Your task to perform on an android device: add a label to a message in the gmail app Image 0: 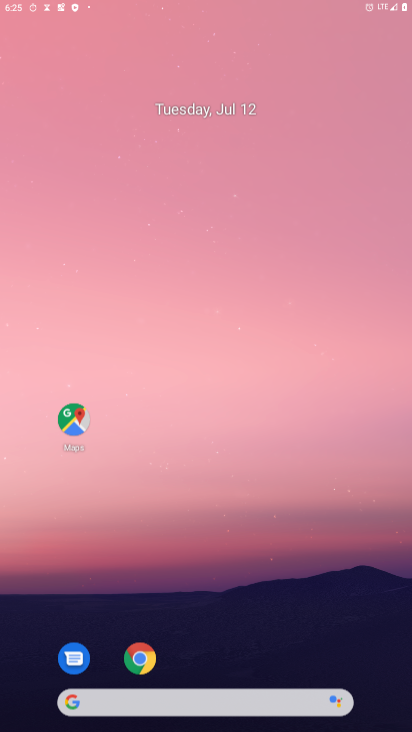
Step 0: press home button
Your task to perform on an android device: add a label to a message in the gmail app Image 1: 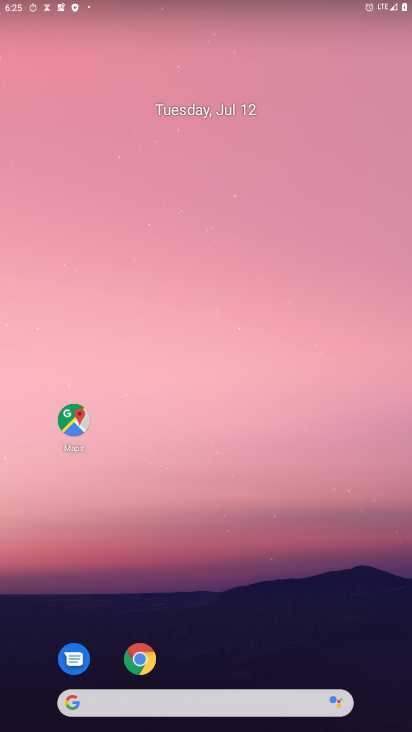
Step 1: drag from (202, 335) to (220, 191)
Your task to perform on an android device: add a label to a message in the gmail app Image 2: 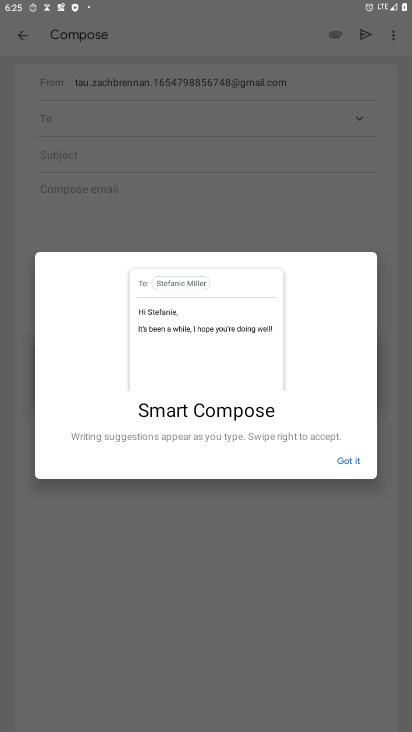
Step 2: drag from (209, 446) to (219, 106)
Your task to perform on an android device: add a label to a message in the gmail app Image 3: 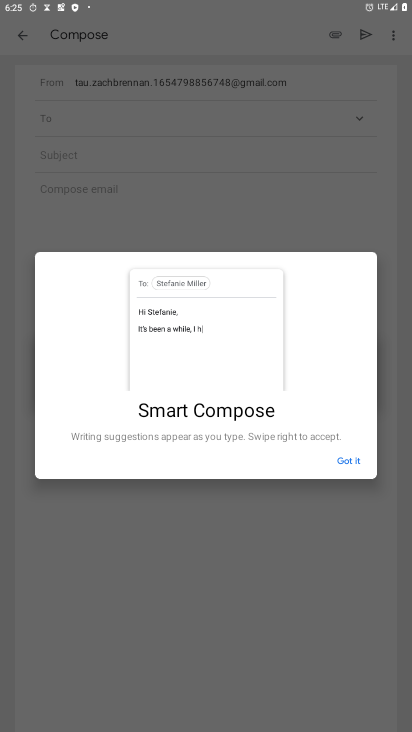
Step 3: click (352, 459)
Your task to perform on an android device: add a label to a message in the gmail app Image 4: 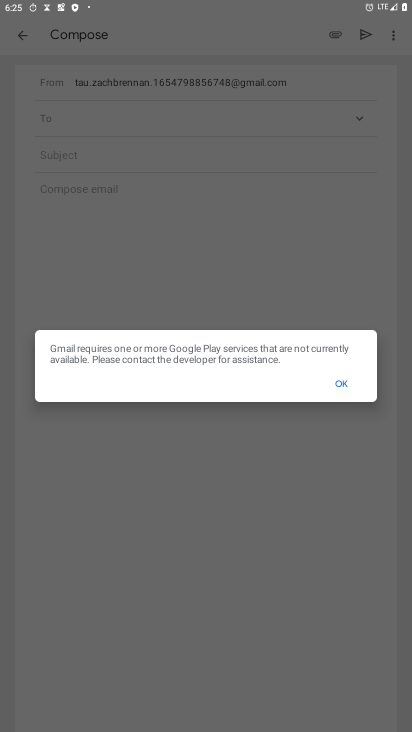
Step 4: click (343, 385)
Your task to perform on an android device: add a label to a message in the gmail app Image 5: 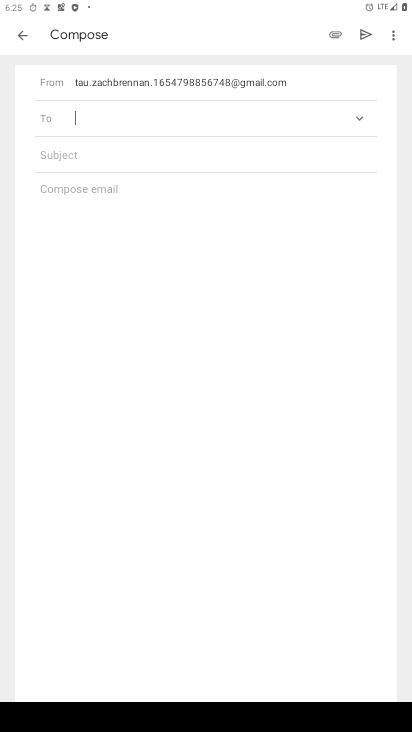
Step 5: click (22, 39)
Your task to perform on an android device: add a label to a message in the gmail app Image 6: 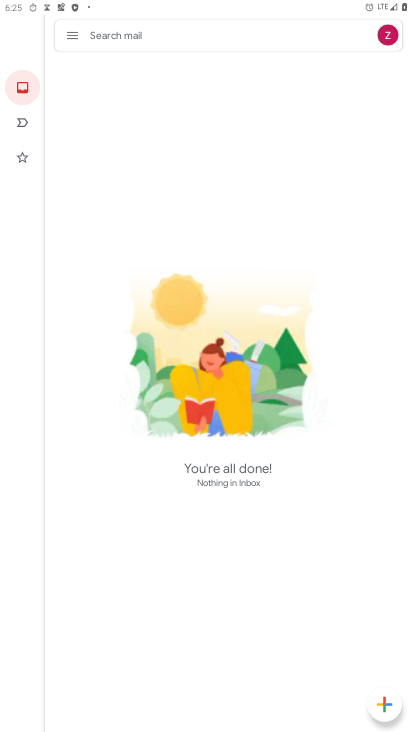
Step 6: click (75, 29)
Your task to perform on an android device: add a label to a message in the gmail app Image 7: 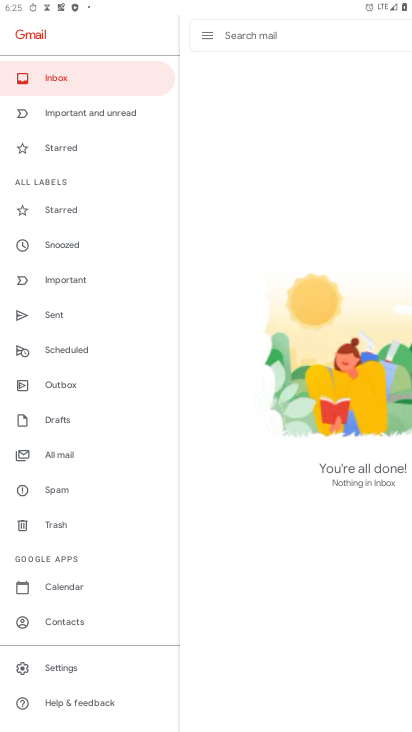
Step 7: click (67, 452)
Your task to perform on an android device: add a label to a message in the gmail app Image 8: 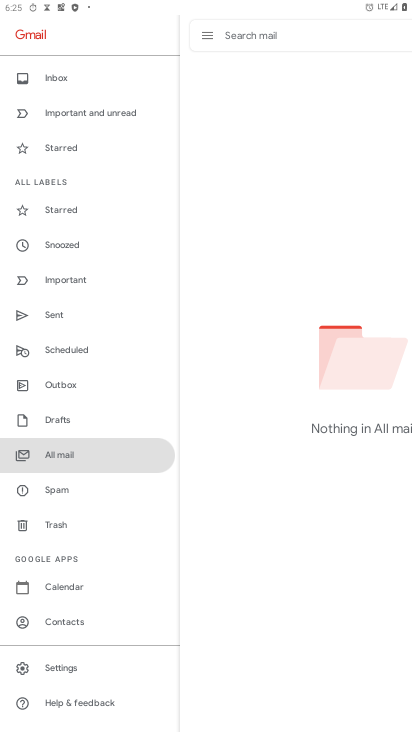
Step 8: task complete